Your task to perform on an android device: turn notification dots off Image 0: 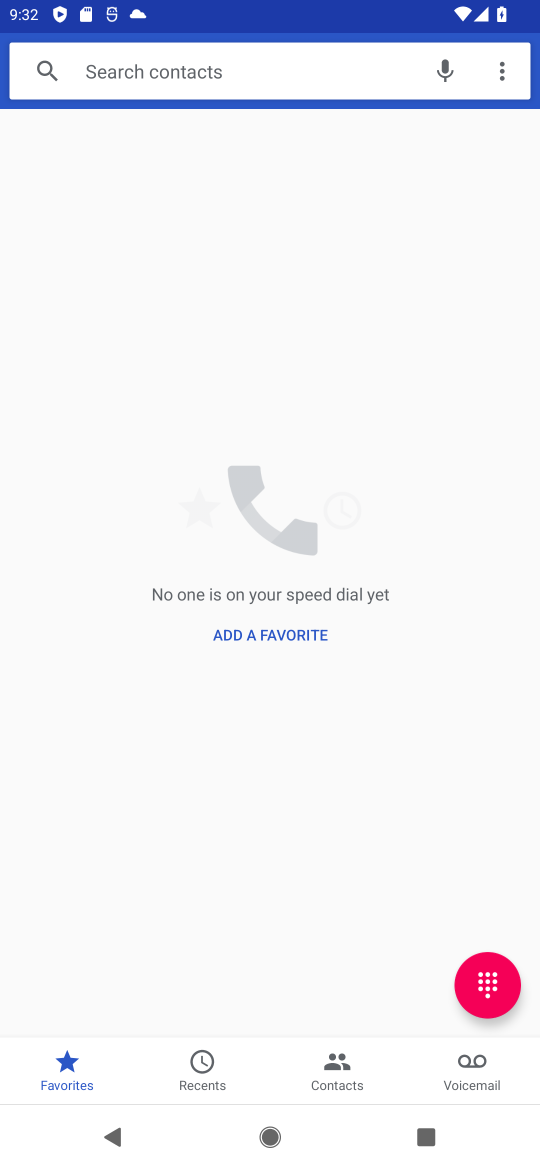
Step 0: press home button
Your task to perform on an android device: turn notification dots off Image 1: 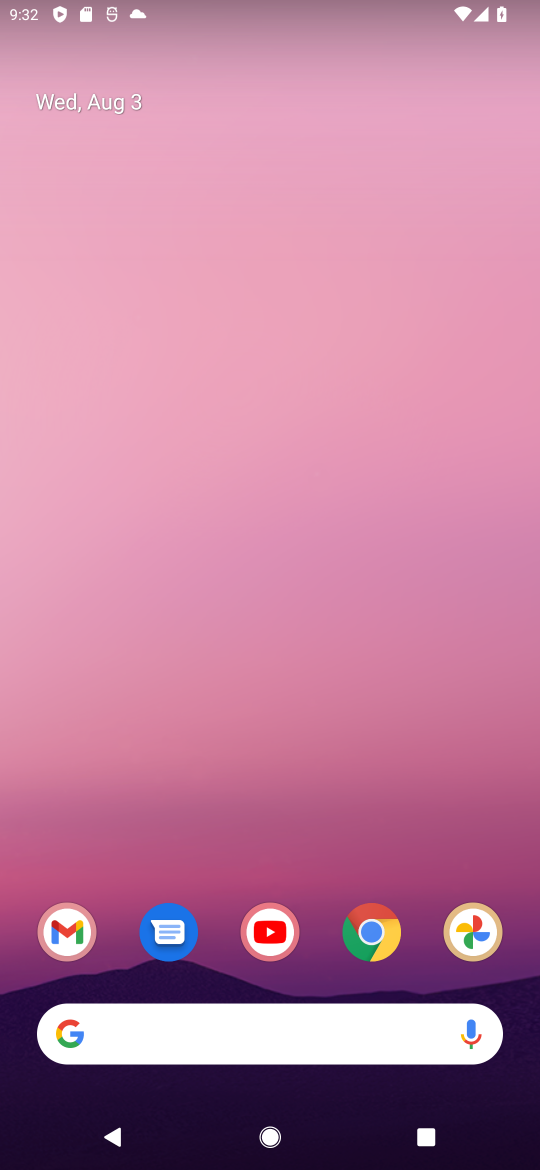
Step 1: drag from (429, 874) to (365, 83)
Your task to perform on an android device: turn notification dots off Image 2: 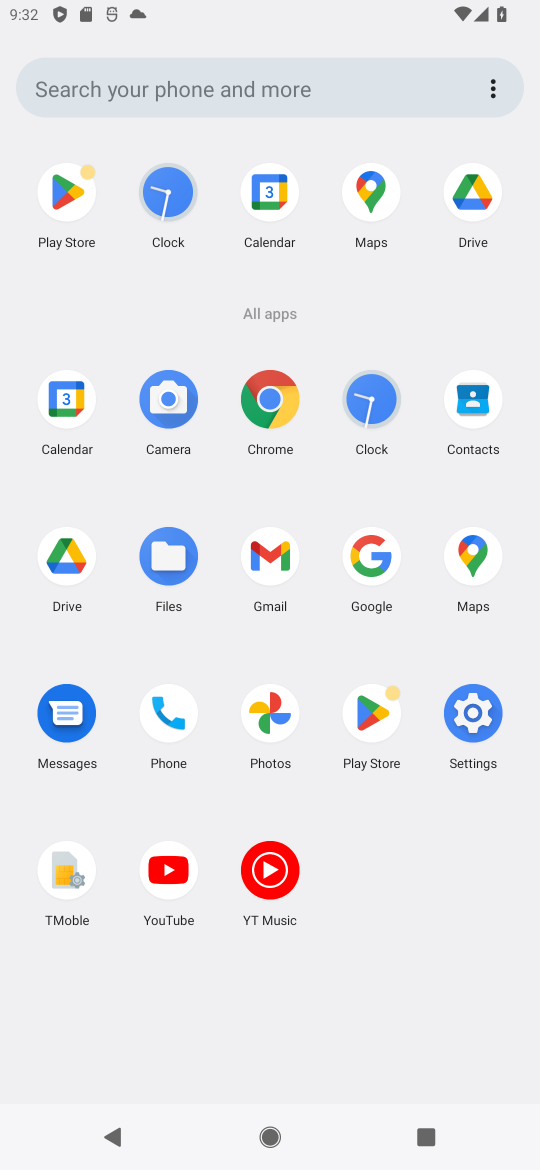
Step 2: click (463, 737)
Your task to perform on an android device: turn notification dots off Image 3: 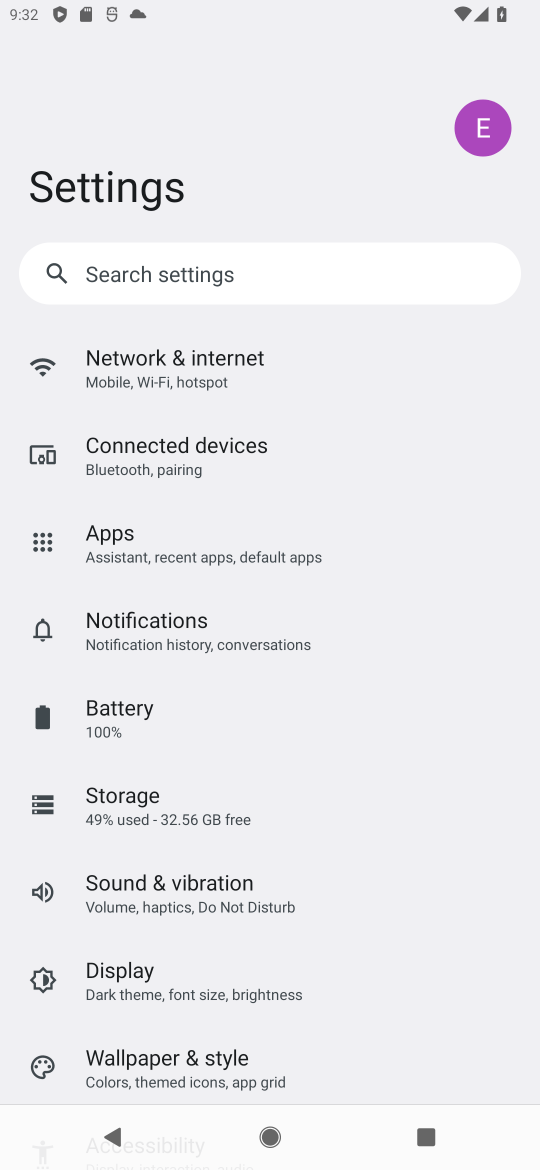
Step 3: click (311, 648)
Your task to perform on an android device: turn notification dots off Image 4: 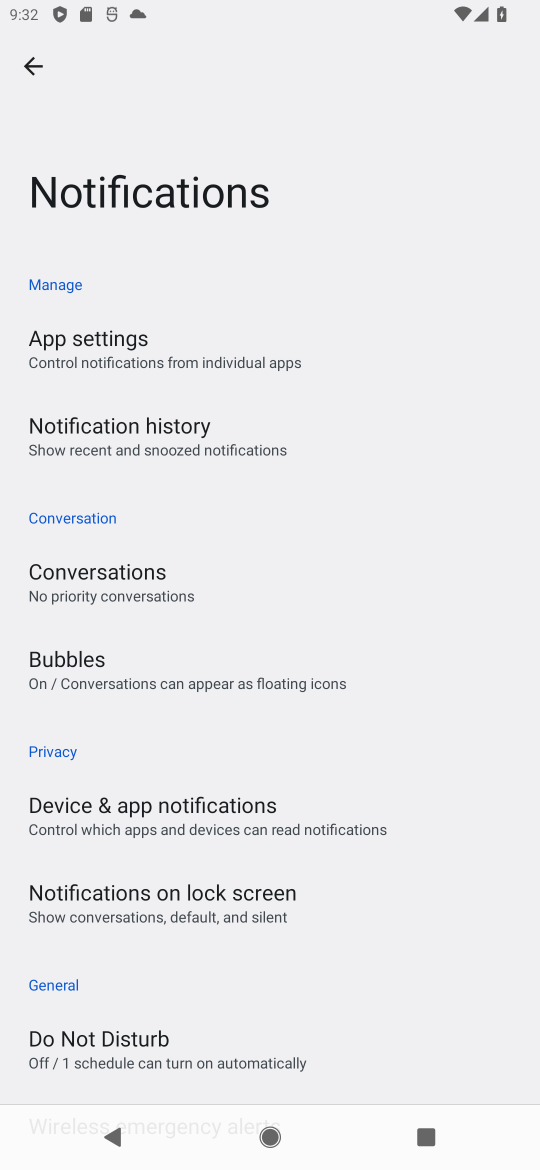
Step 4: drag from (259, 1026) to (227, 527)
Your task to perform on an android device: turn notification dots off Image 5: 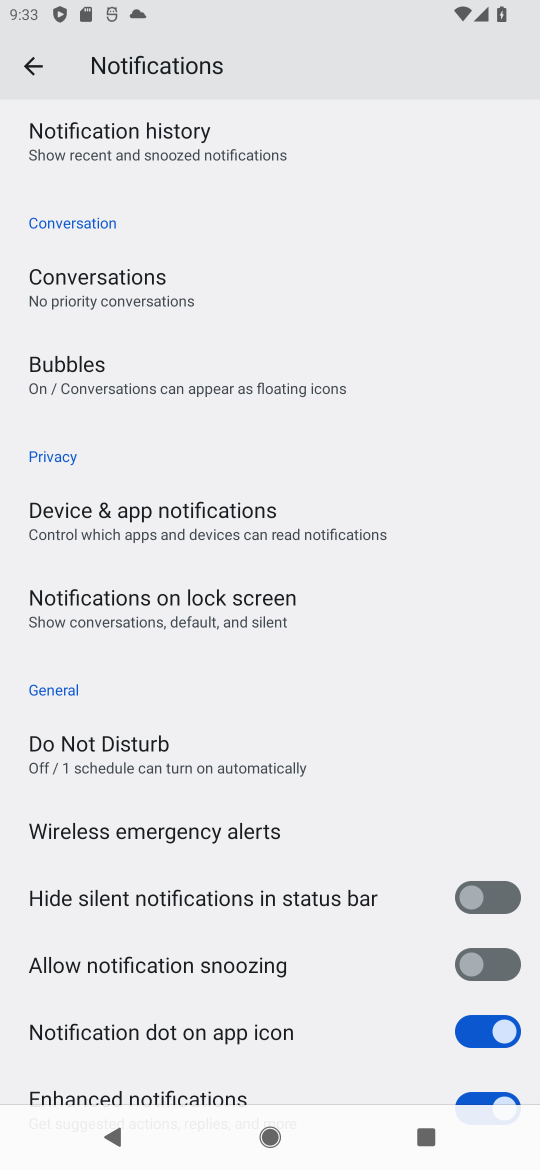
Step 5: drag from (326, 1038) to (295, 672)
Your task to perform on an android device: turn notification dots off Image 6: 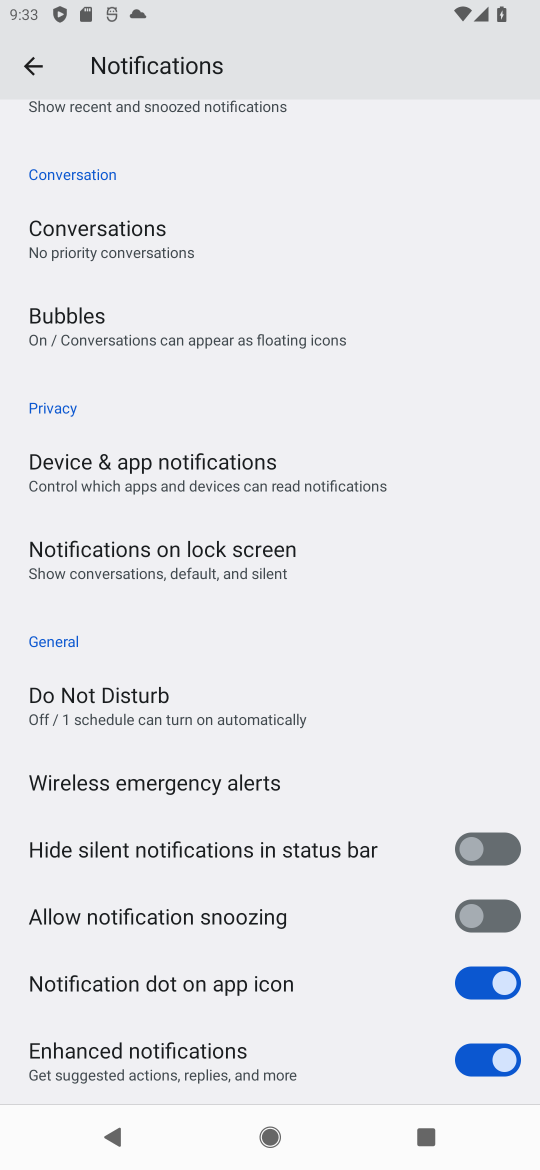
Step 6: drag from (317, 1013) to (274, 771)
Your task to perform on an android device: turn notification dots off Image 7: 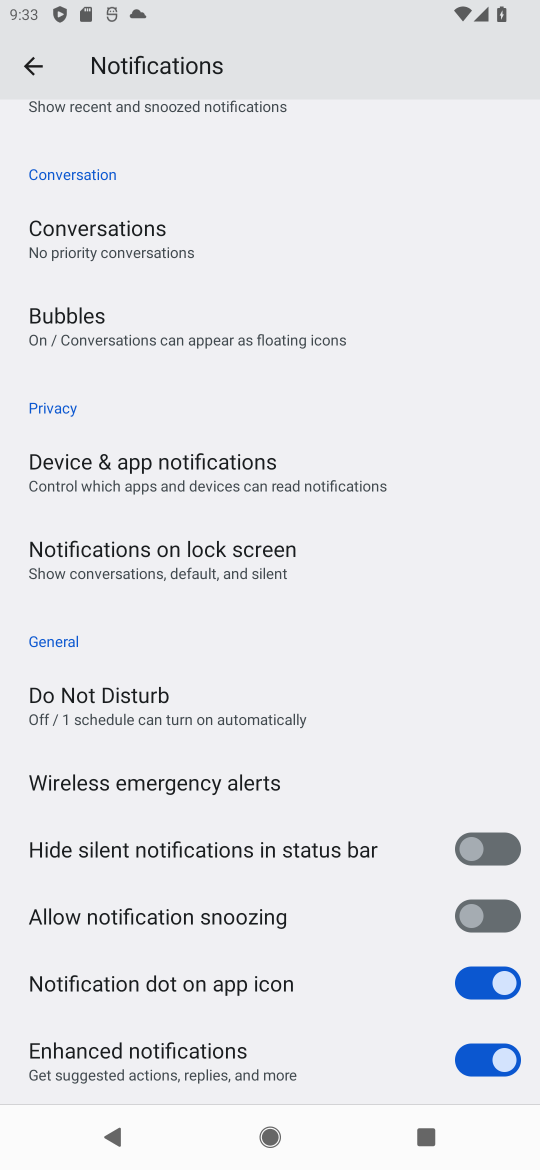
Step 7: click (479, 984)
Your task to perform on an android device: turn notification dots off Image 8: 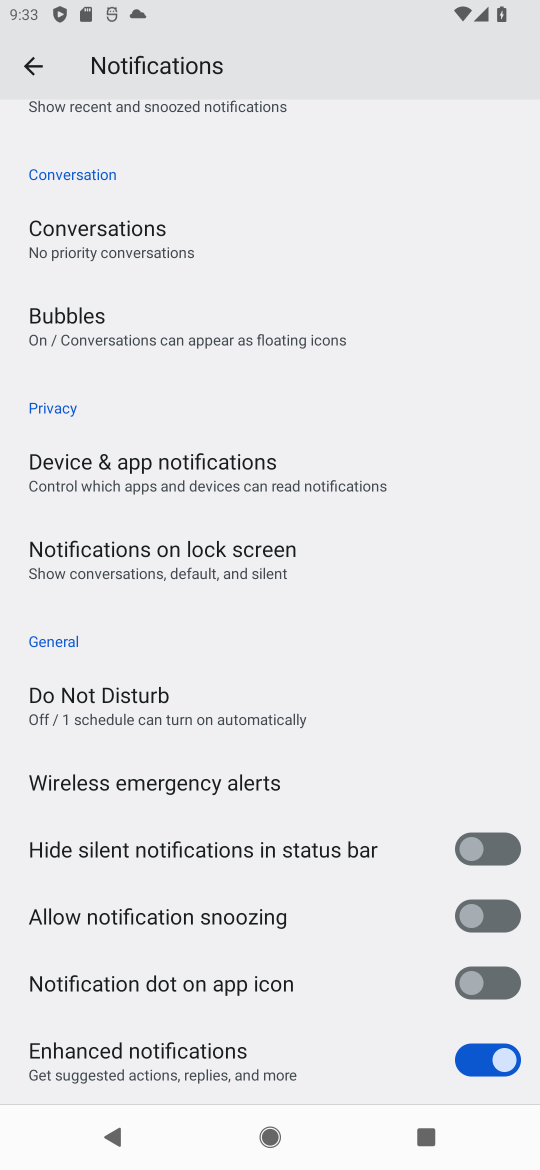
Step 8: task complete